Your task to perform on an android device: What's the weather? Image 0: 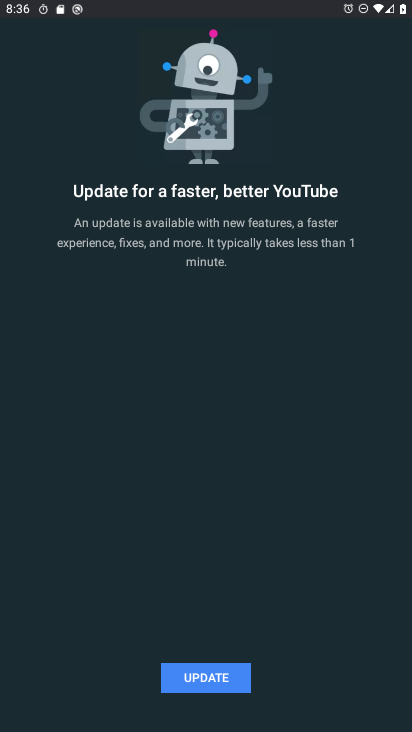
Step 0: press home button
Your task to perform on an android device: What's the weather? Image 1: 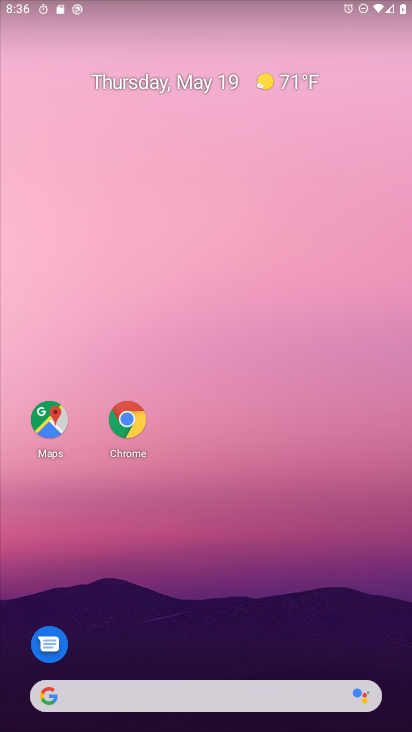
Step 1: drag from (163, 680) to (188, 295)
Your task to perform on an android device: What's the weather? Image 2: 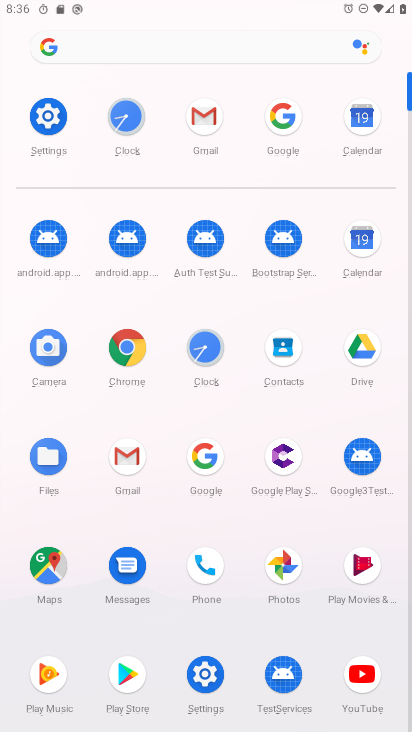
Step 2: click (226, 458)
Your task to perform on an android device: What's the weather? Image 3: 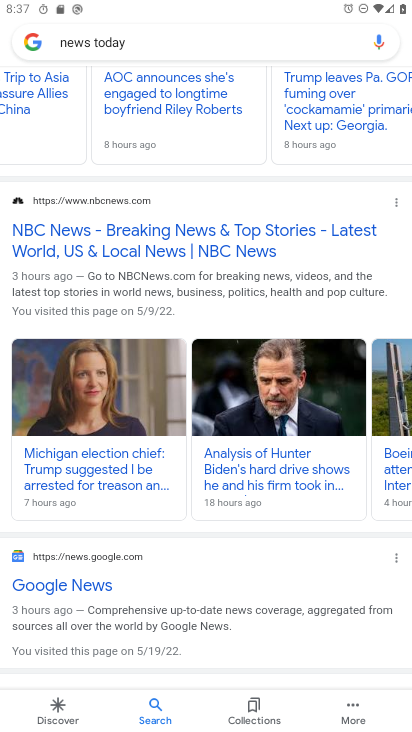
Step 3: click (305, 44)
Your task to perform on an android device: What's the weather? Image 4: 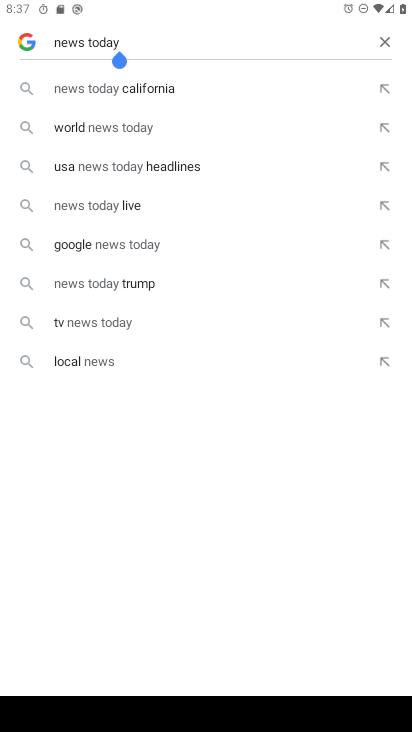
Step 4: click (380, 44)
Your task to perform on an android device: What's the weather? Image 5: 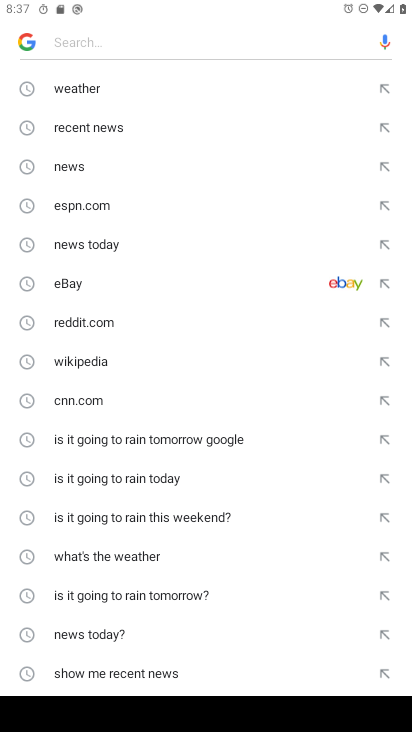
Step 5: click (84, 82)
Your task to perform on an android device: What's the weather? Image 6: 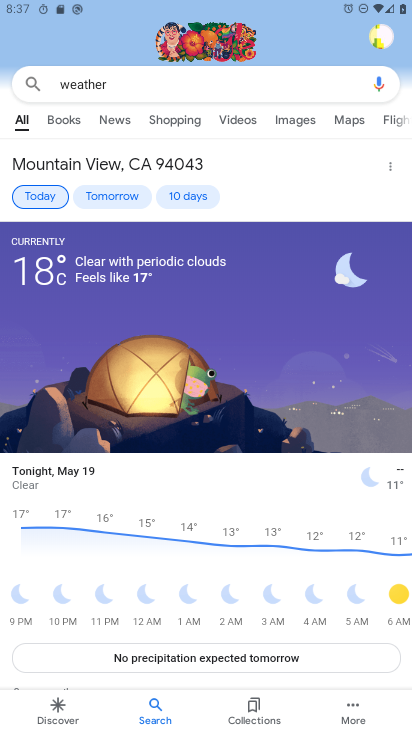
Step 6: drag from (179, 612) to (234, 305)
Your task to perform on an android device: What's the weather? Image 7: 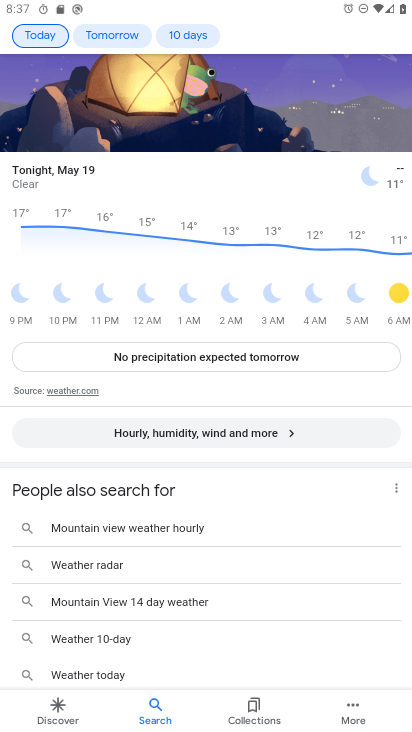
Step 7: click (190, 357)
Your task to perform on an android device: What's the weather? Image 8: 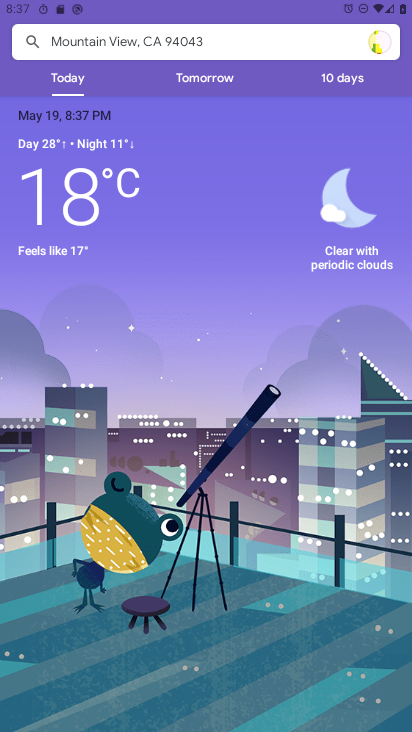
Step 8: task complete